Your task to perform on an android device: turn pop-ups on in chrome Image 0: 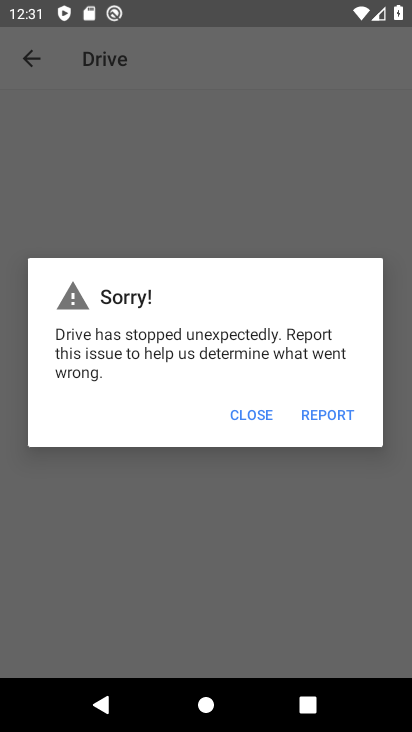
Step 0: press home button
Your task to perform on an android device: turn pop-ups on in chrome Image 1: 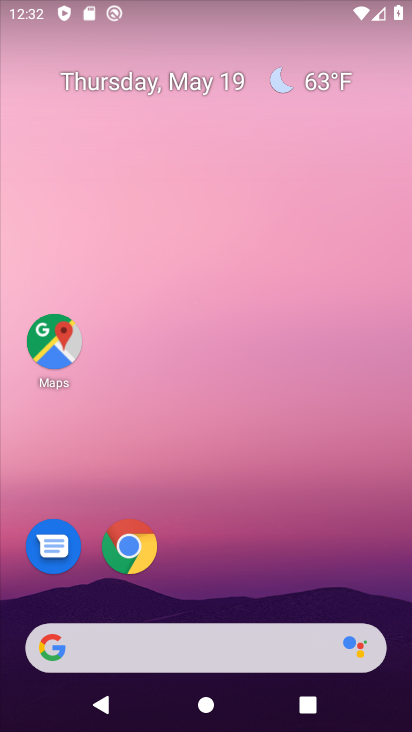
Step 1: click (130, 546)
Your task to perform on an android device: turn pop-ups on in chrome Image 2: 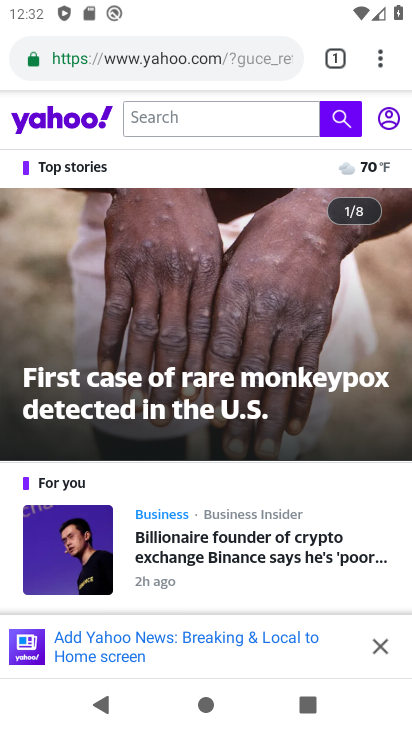
Step 2: click (381, 57)
Your task to perform on an android device: turn pop-ups on in chrome Image 3: 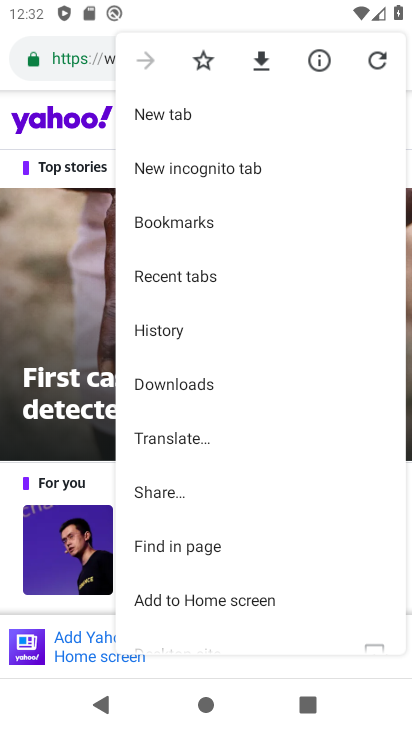
Step 3: drag from (189, 467) to (203, 339)
Your task to perform on an android device: turn pop-ups on in chrome Image 4: 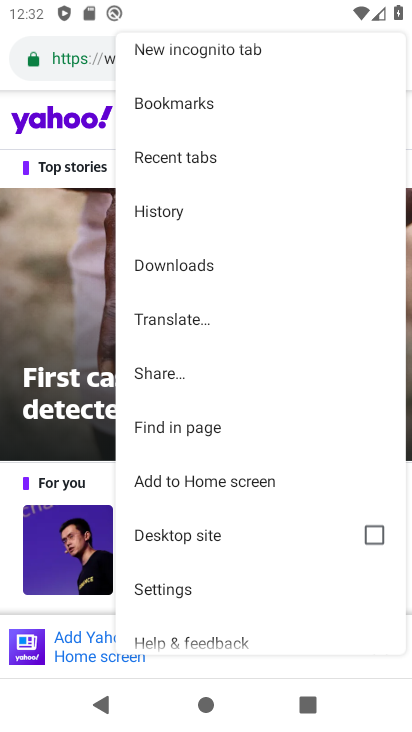
Step 4: drag from (194, 509) to (222, 425)
Your task to perform on an android device: turn pop-ups on in chrome Image 5: 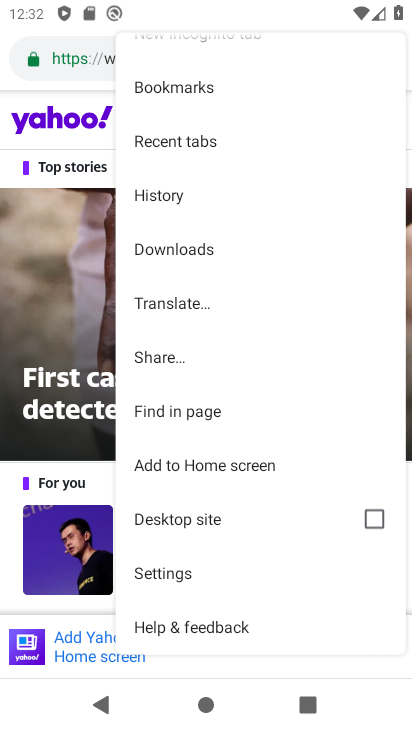
Step 5: click (159, 571)
Your task to perform on an android device: turn pop-ups on in chrome Image 6: 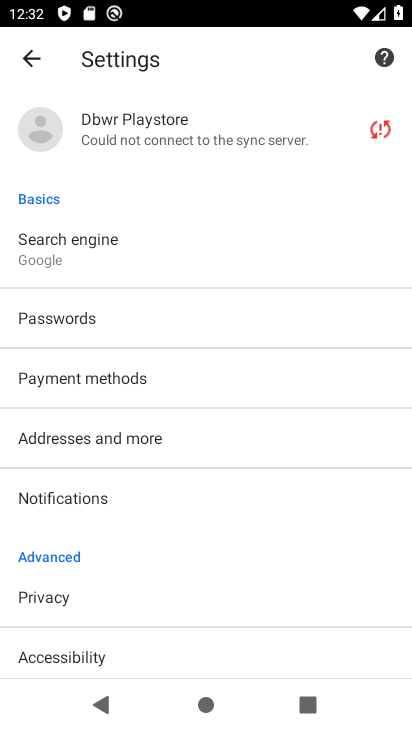
Step 6: drag from (120, 571) to (153, 459)
Your task to perform on an android device: turn pop-ups on in chrome Image 7: 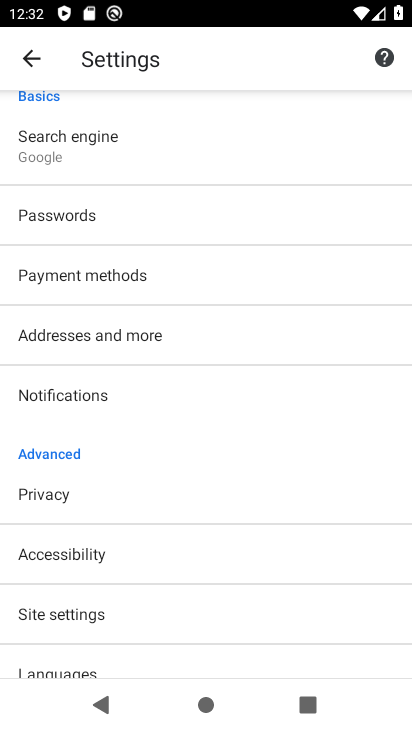
Step 7: click (71, 616)
Your task to perform on an android device: turn pop-ups on in chrome Image 8: 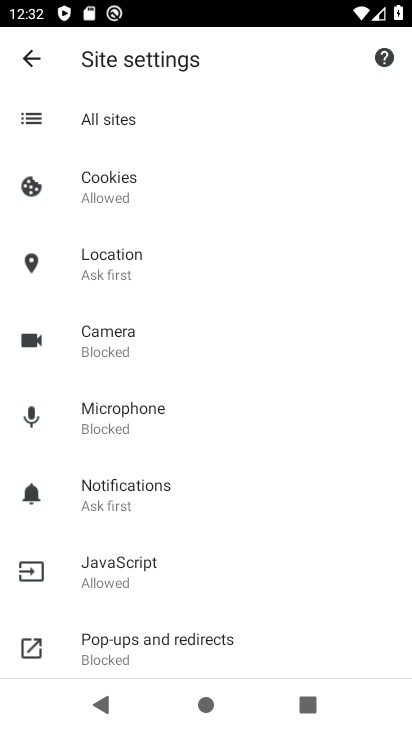
Step 8: click (127, 635)
Your task to perform on an android device: turn pop-ups on in chrome Image 9: 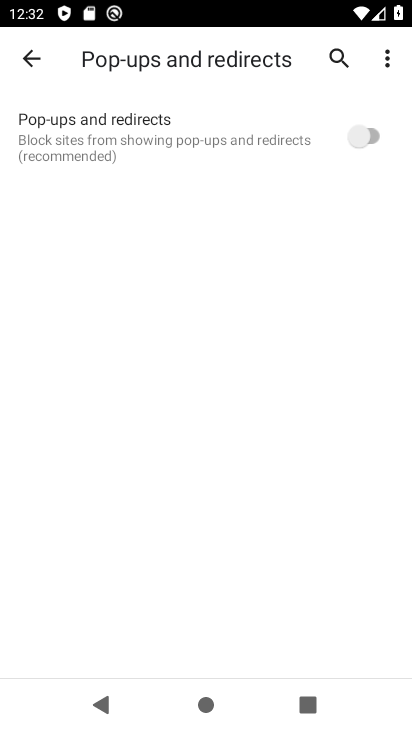
Step 9: click (360, 138)
Your task to perform on an android device: turn pop-ups on in chrome Image 10: 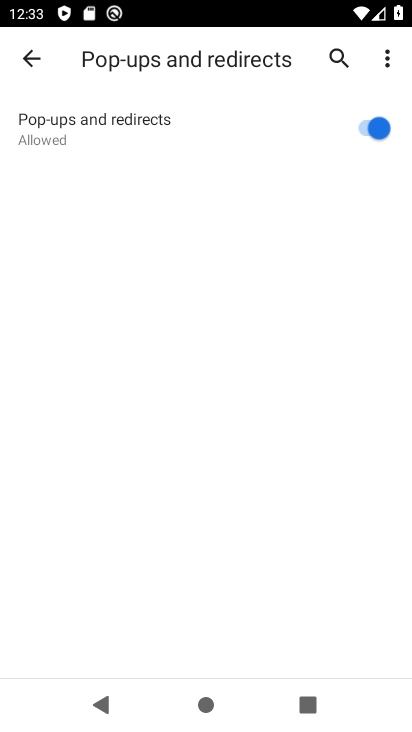
Step 10: task complete